Your task to perform on an android device: Search for vegetarian restaurants on Maps Image 0: 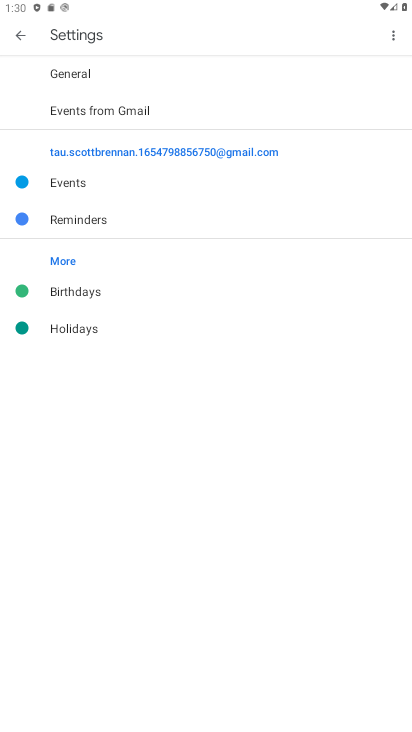
Step 0: task complete